Your task to perform on an android device: Open calendar and show me the fourth week of next month Image 0: 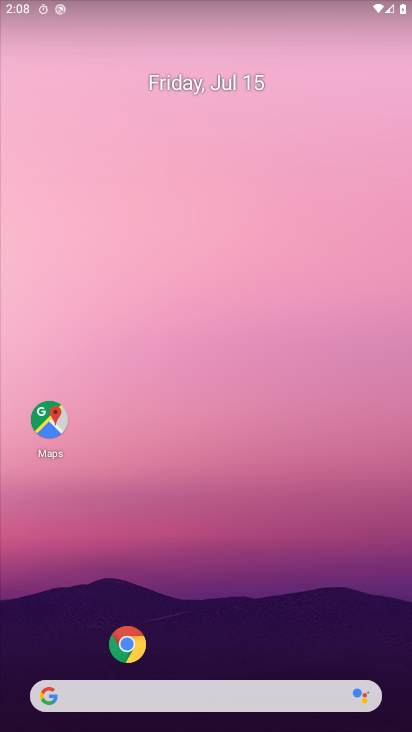
Step 0: drag from (20, 660) to (239, 116)
Your task to perform on an android device: Open calendar and show me the fourth week of next month Image 1: 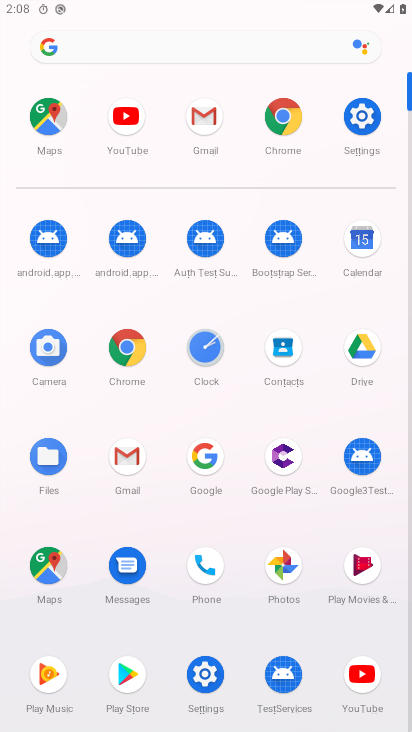
Step 1: click (350, 245)
Your task to perform on an android device: Open calendar and show me the fourth week of next month Image 2: 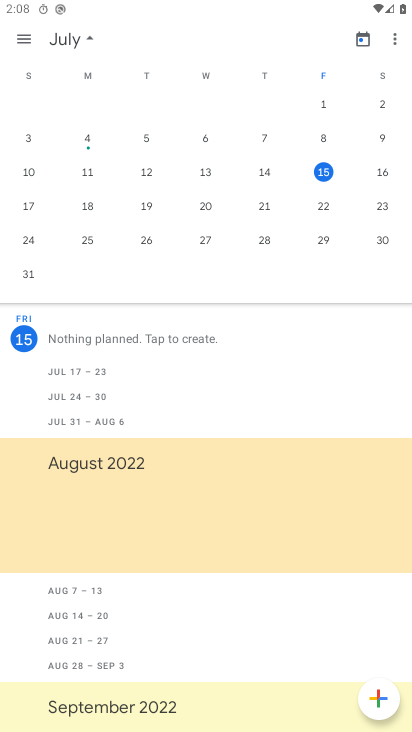
Step 2: drag from (398, 171) to (15, 163)
Your task to perform on an android device: Open calendar and show me the fourth week of next month Image 3: 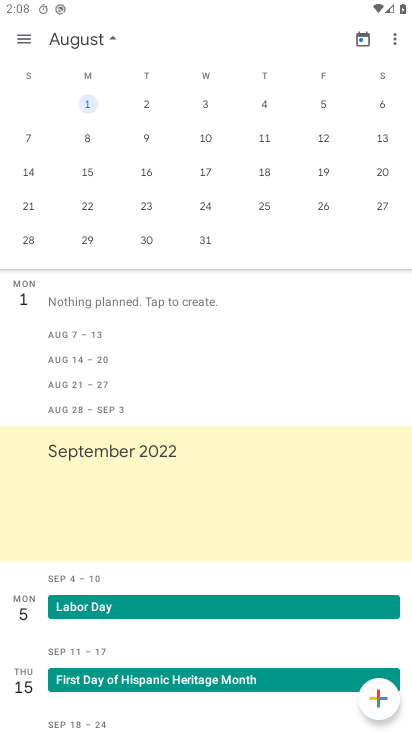
Step 3: click (84, 202)
Your task to perform on an android device: Open calendar and show me the fourth week of next month Image 4: 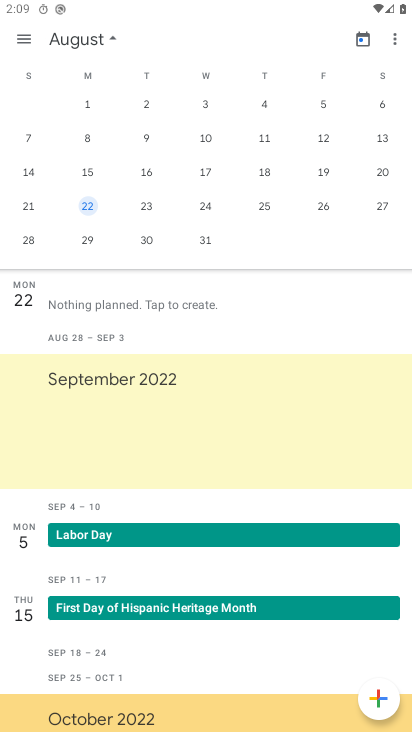
Step 4: task complete